Your task to perform on an android device: install app "Google Chat" Image 0: 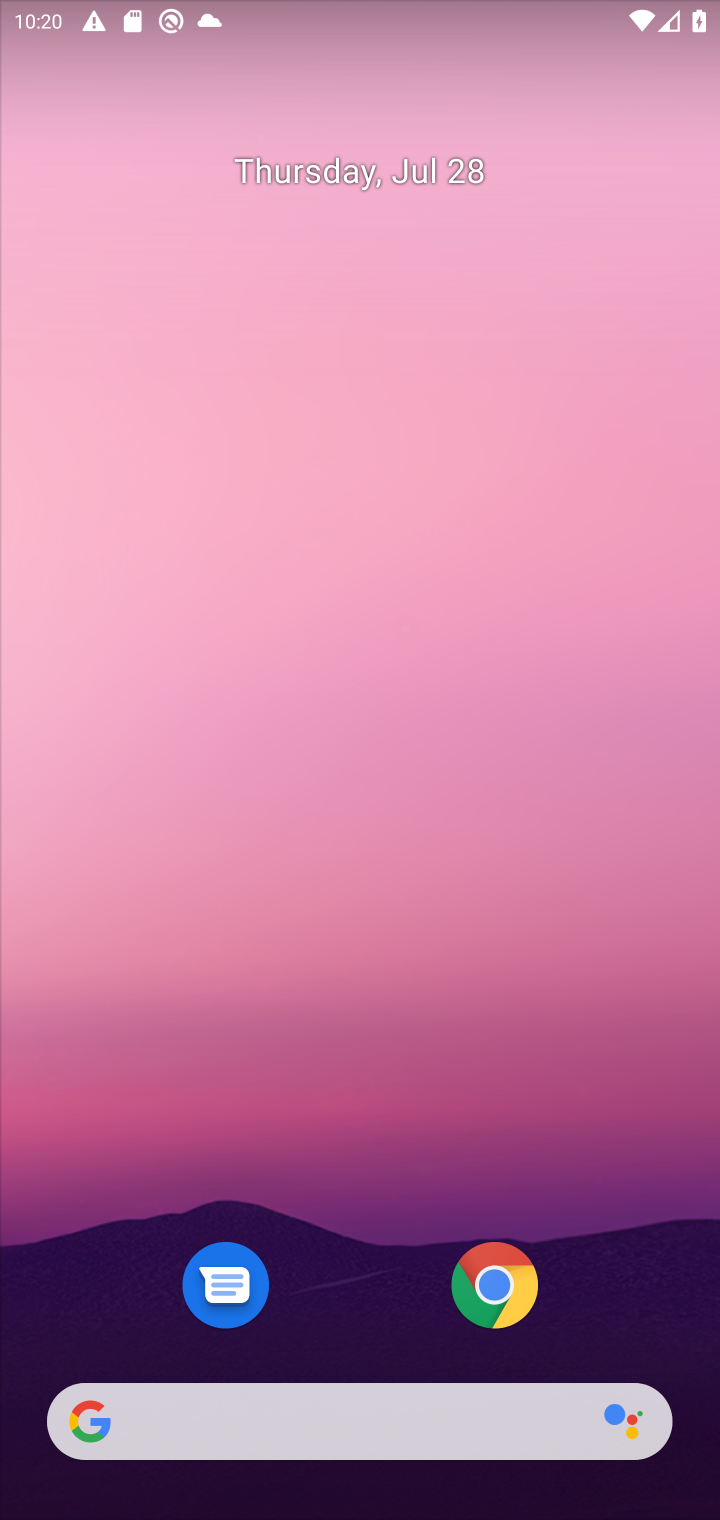
Step 0: drag from (563, 826) to (437, 47)
Your task to perform on an android device: install app "Google Chat" Image 1: 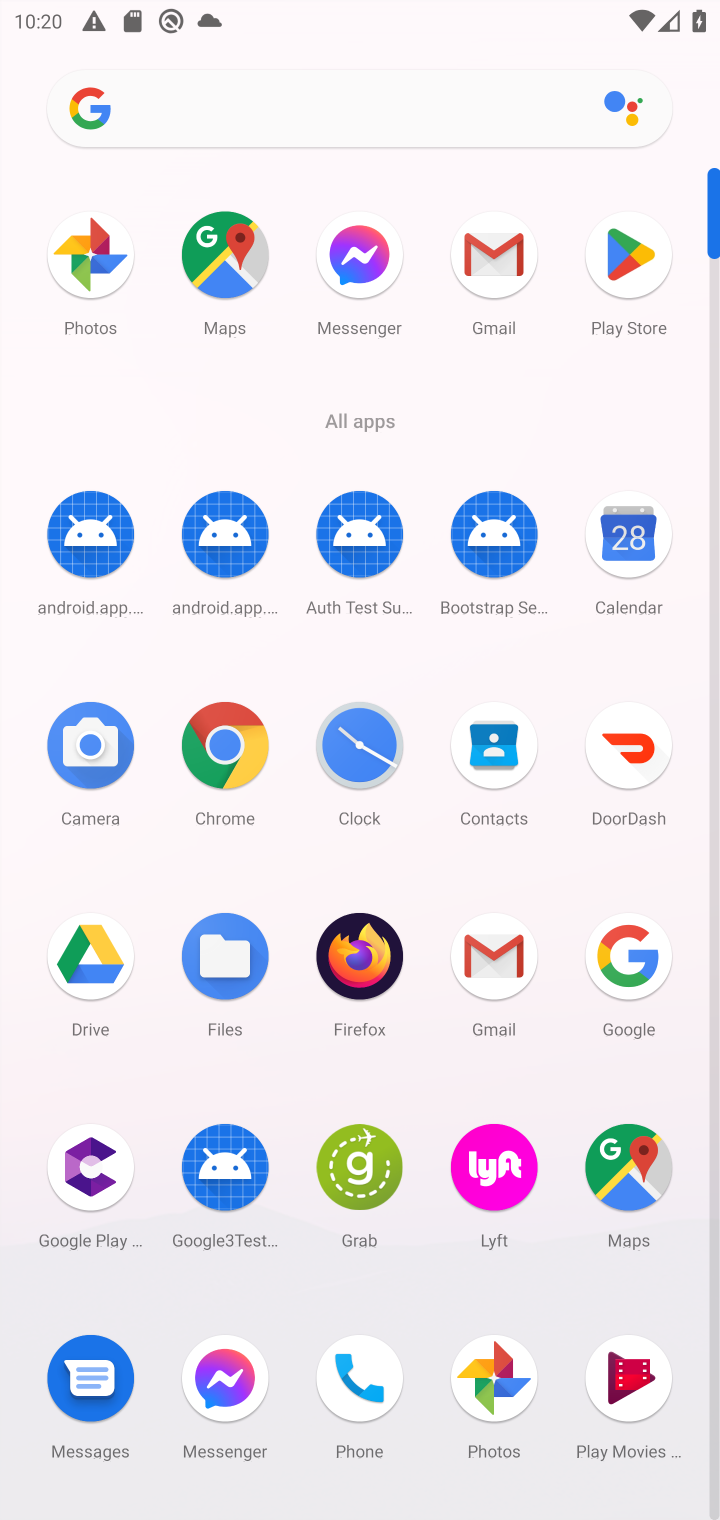
Step 1: click (632, 257)
Your task to perform on an android device: install app "Google Chat" Image 2: 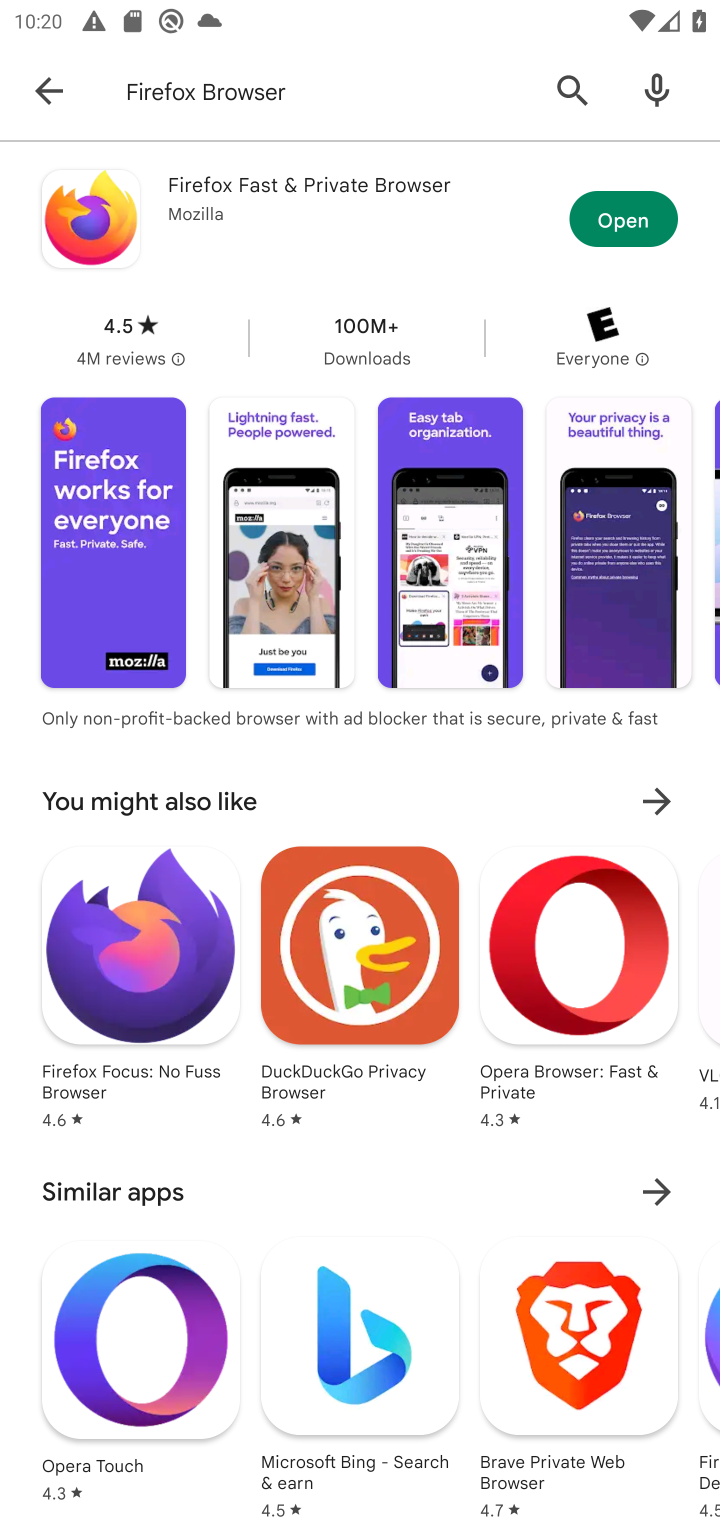
Step 2: click (422, 103)
Your task to perform on an android device: install app "Google Chat" Image 3: 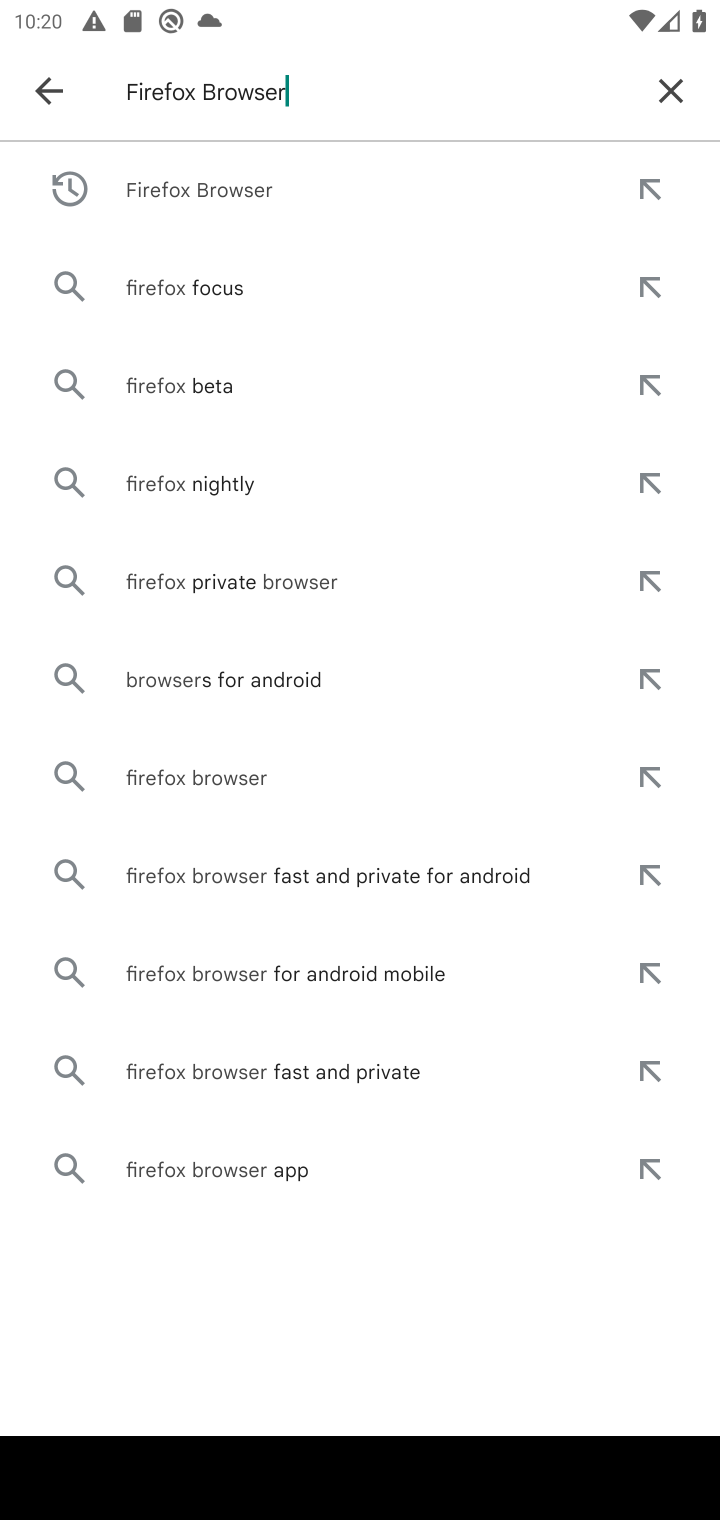
Step 3: click (670, 88)
Your task to perform on an android device: install app "Google Chat" Image 4: 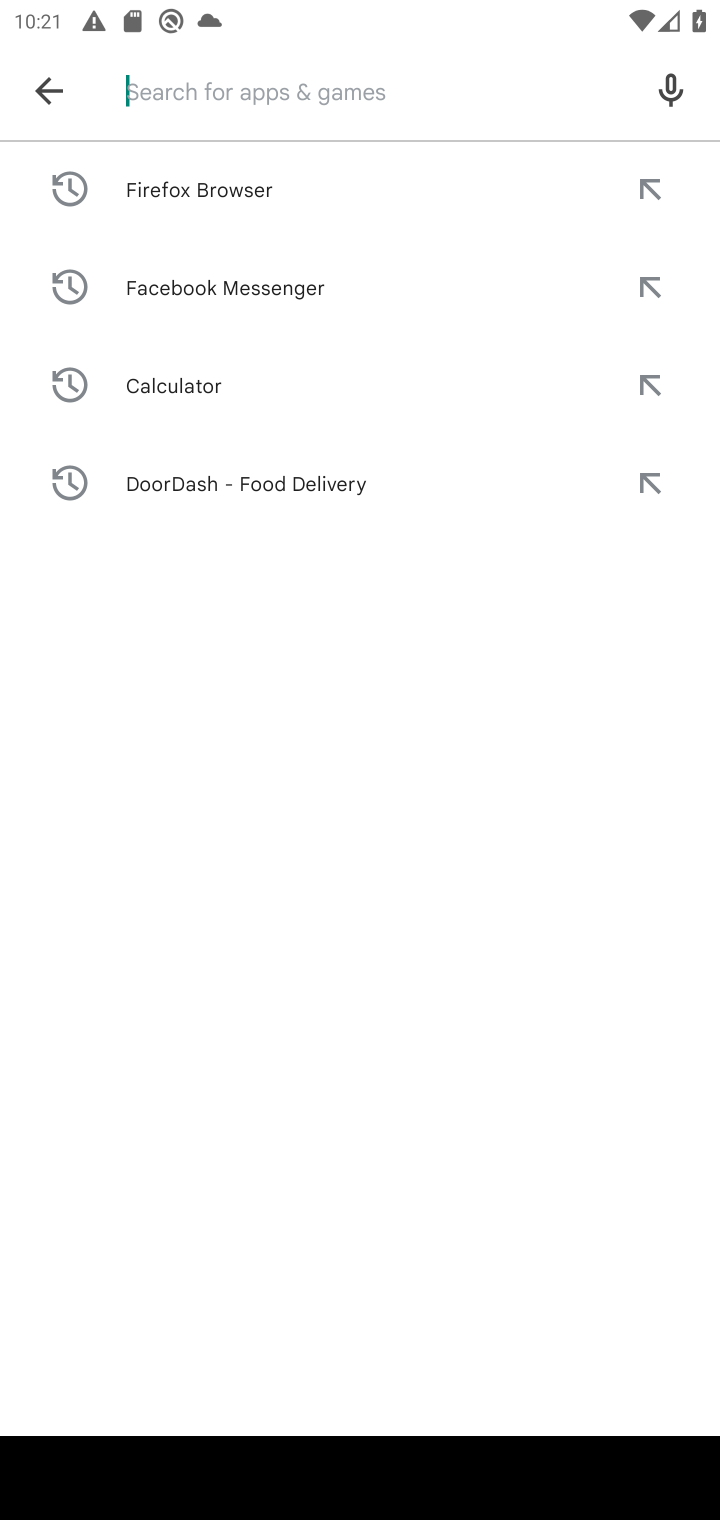
Step 4: type "Google Ch"
Your task to perform on an android device: install app "Google Chat" Image 5: 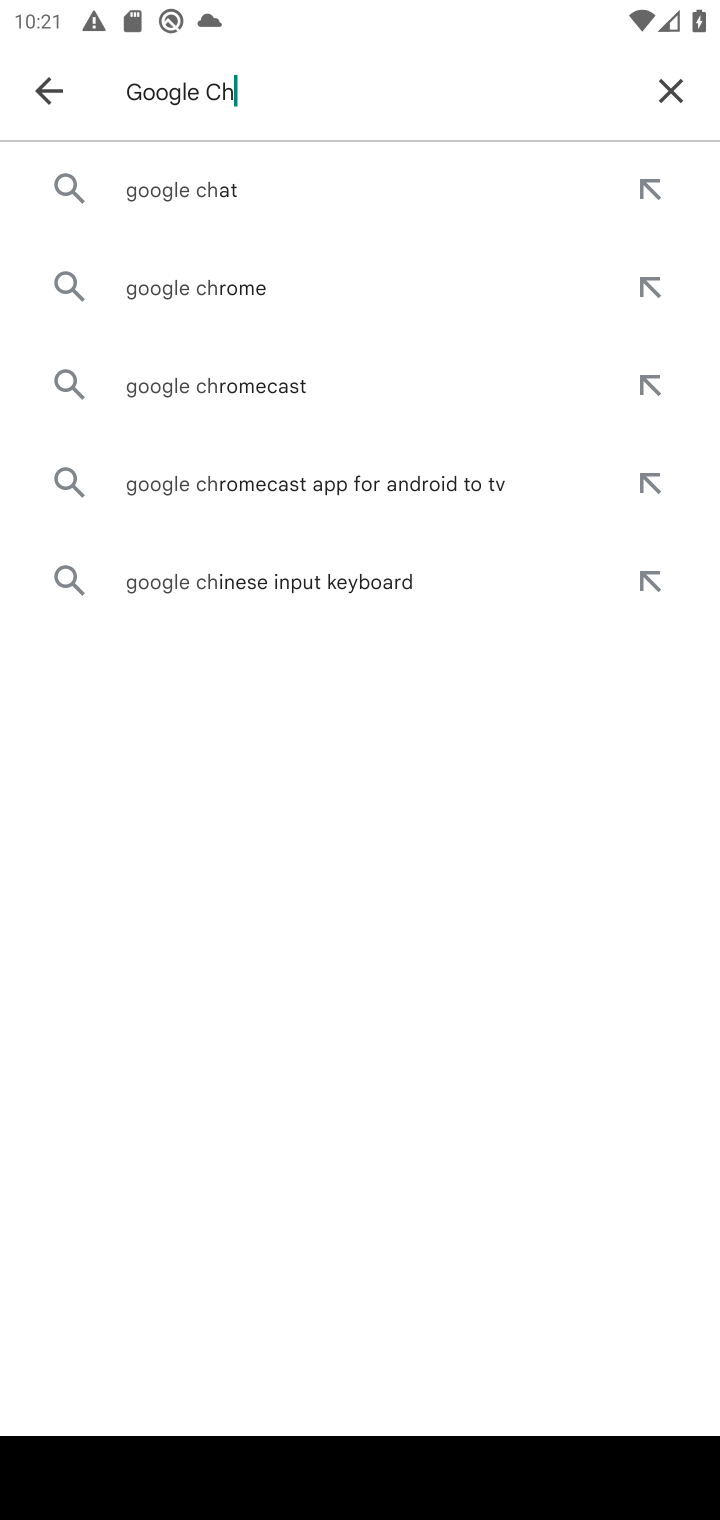
Step 5: type "at"
Your task to perform on an android device: install app "Google Chat" Image 6: 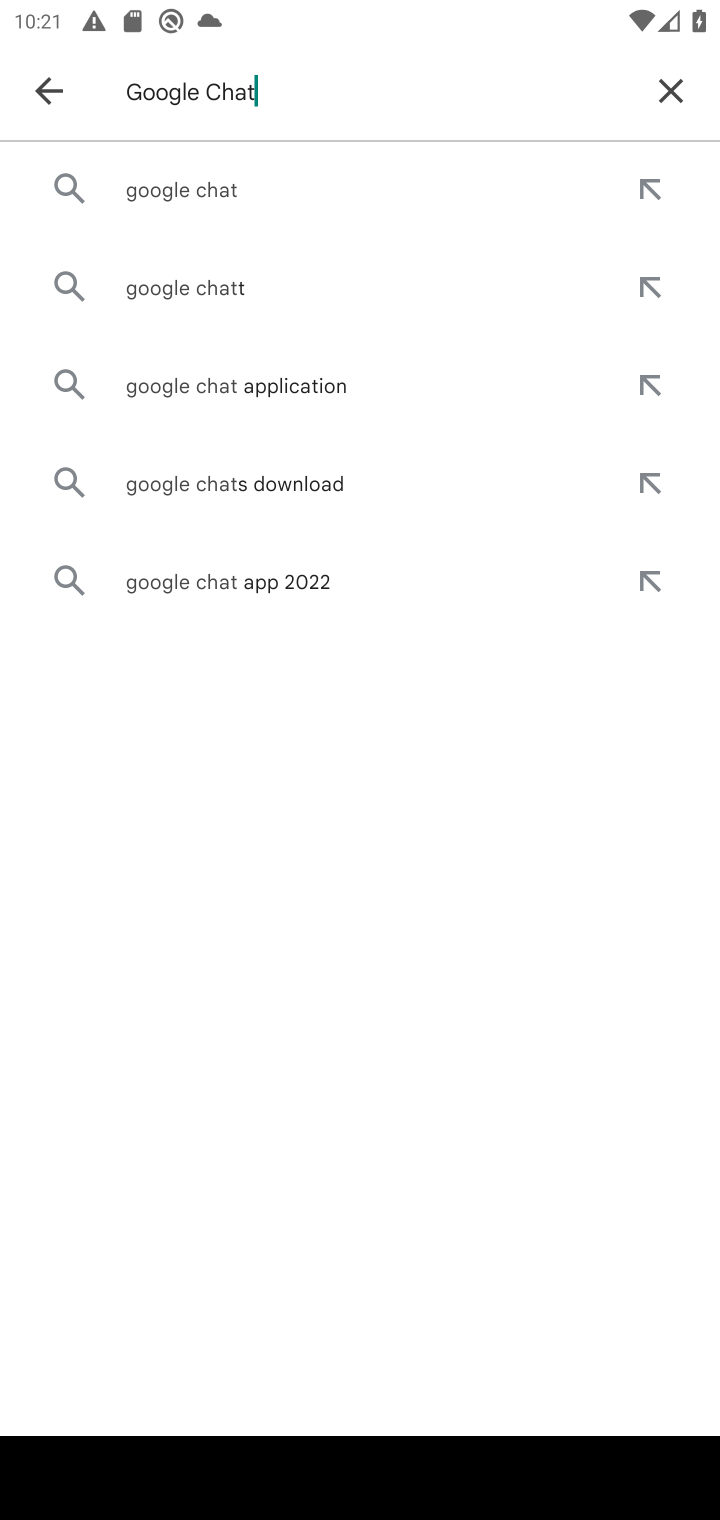
Step 6: press enter
Your task to perform on an android device: install app "Google Chat" Image 7: 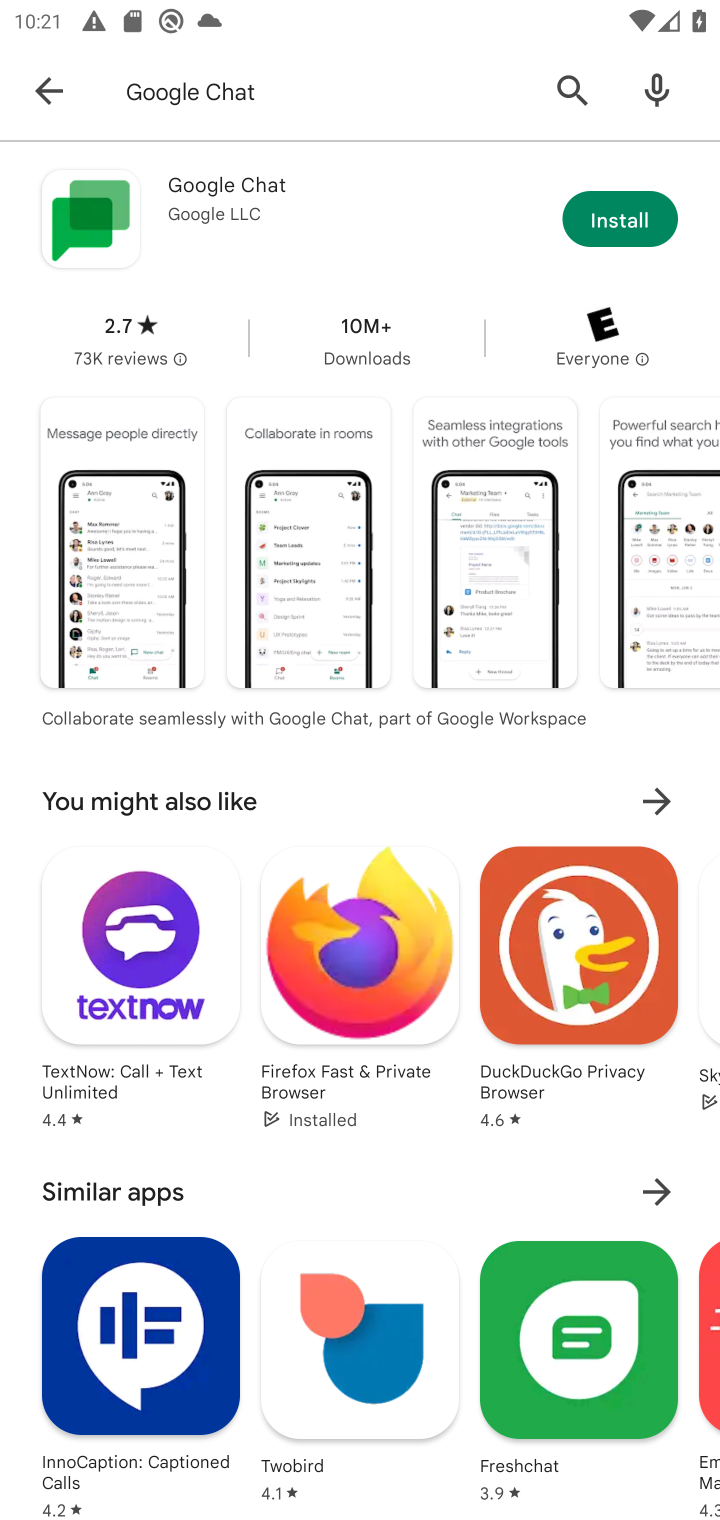
Step 7: click (612, 216)
Your task to perform on an android device: install app "Google Chat" Image 8: 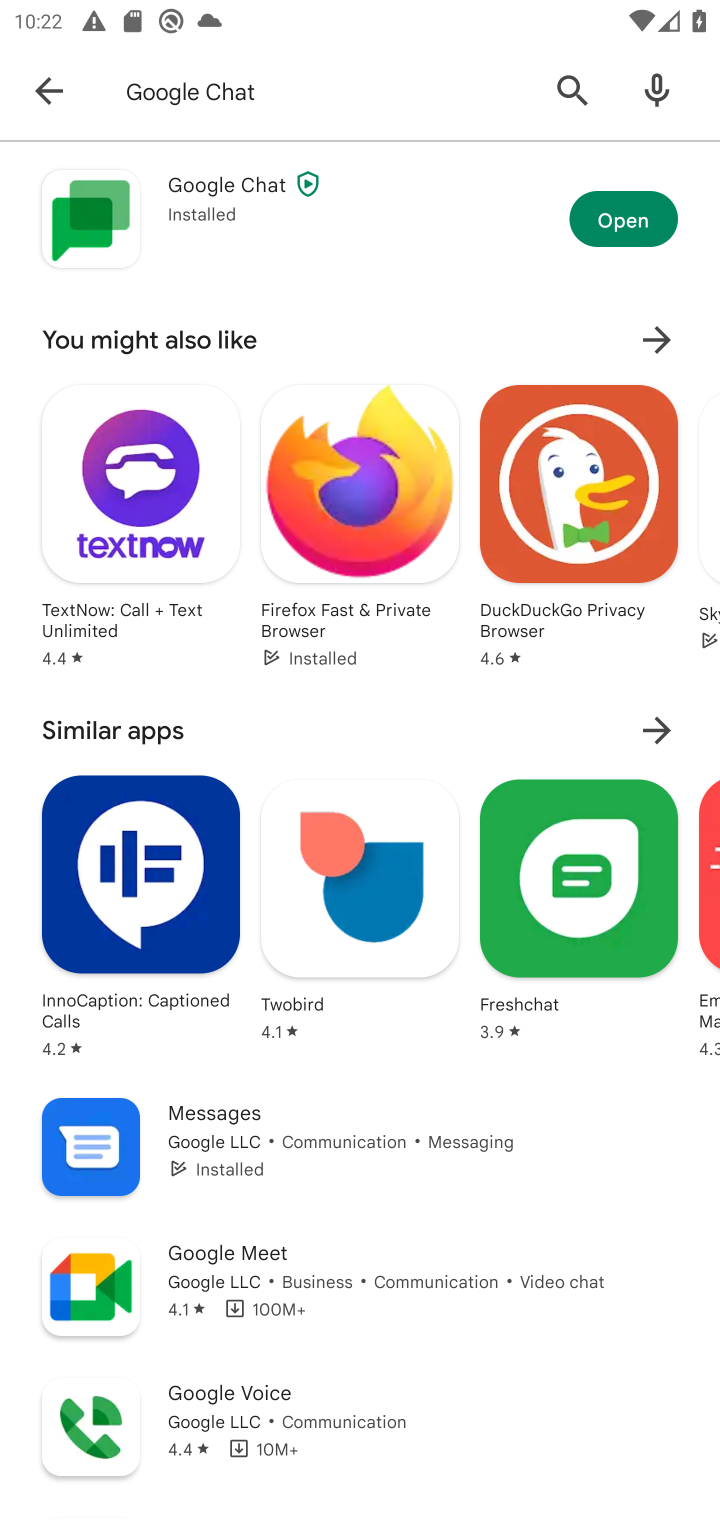
Step 8: task complete